Your task to perform on an android device: turn off notifications settings in the gmail app Image 0: 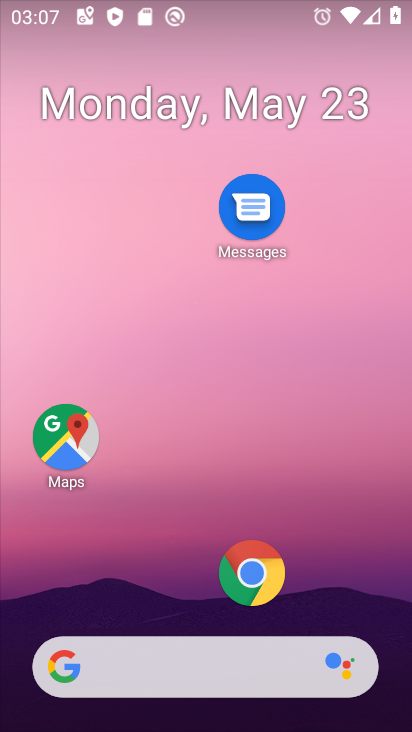
Step 0: drag from (136, 680) to (144, 101)
Your task to perform on an android device: turn off notifications settings in the gmail app Image 1: 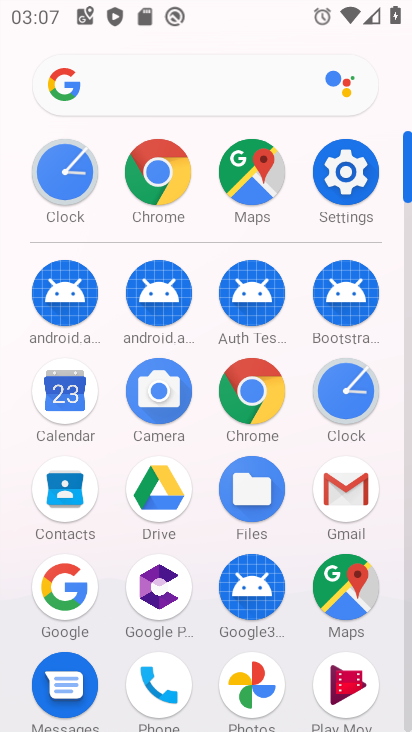
Step 1: click (320, 485)
Your task to perform on an android device: turn off notifications settings in the gmail app Image 2: 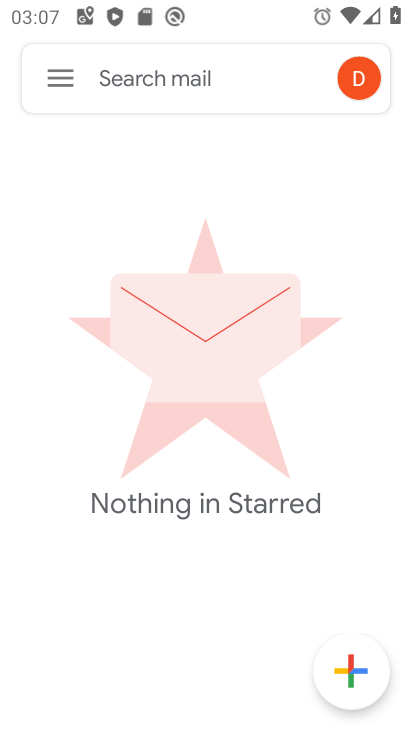
Step 2: click (52, 80)
Your task to perform on an android device: turn off notifications settings in the gmail app Image 3: 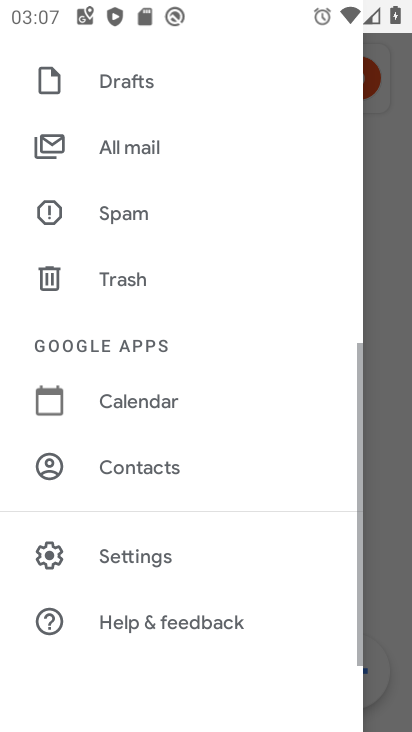
Step 3: click (147, 554)
Your task to perform on an android device: turn off notifications settings in the gmail app Image 4: 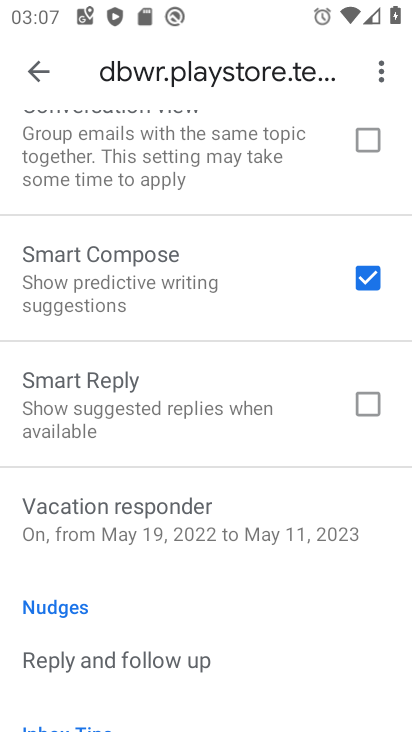
Step 4: drag from (221, 240) to (216, 632)
Your task to perform on an android device: turn off notifications settings in the gmail app Image 5: 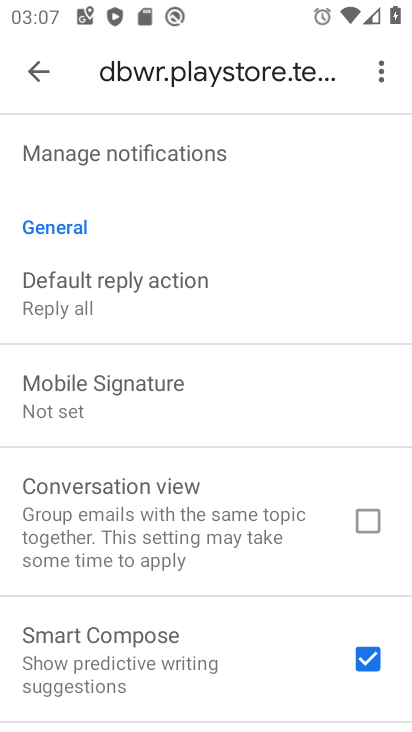
Step 5: click (143, 154)
Your task to perform on an android device: turn off notifications settings in the gmail app Image 6: 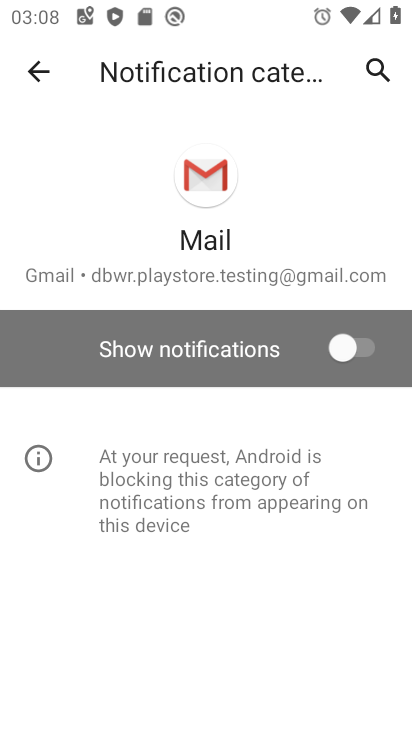
Step 6: task complete